Your task to perform on an android device: check storage Image 0: 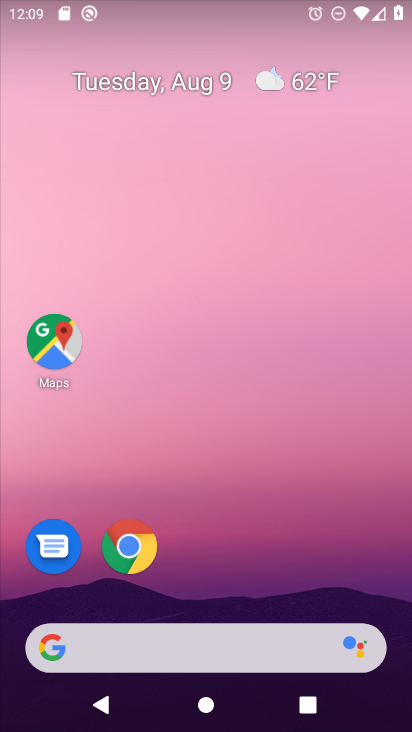
Step 0: drag from (229, 591) to (279, 42)
Your task to perform on an android device: check storage Image 1: 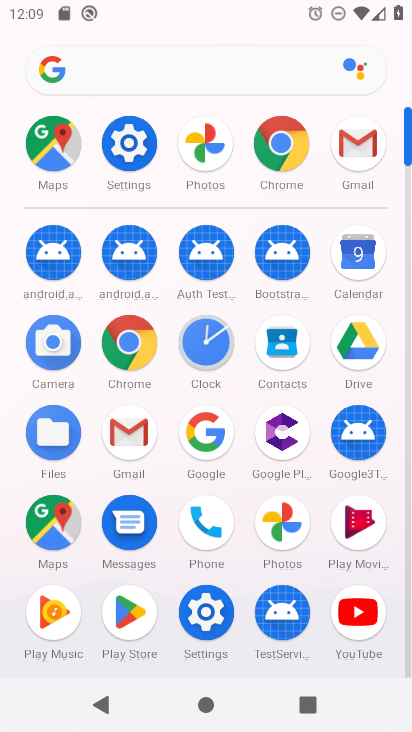
Step 1: click (121, 139)
Your task to perform on an android device: check storage Image 2: 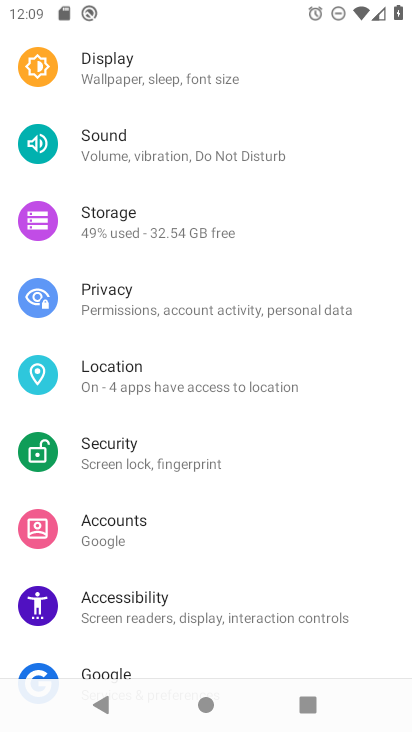
Step 2: click (146, 214)
Your task to perform on an android device: check storage Image 3: 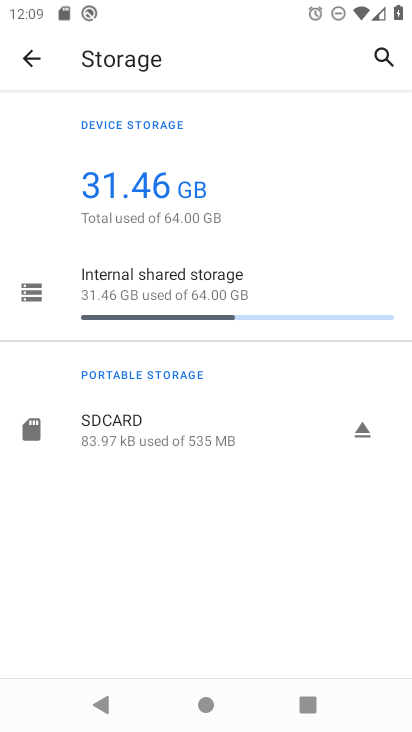
Step 3: task complete